Your task to perform on an android device: toggle notifications settings in the gmail app Image 0: 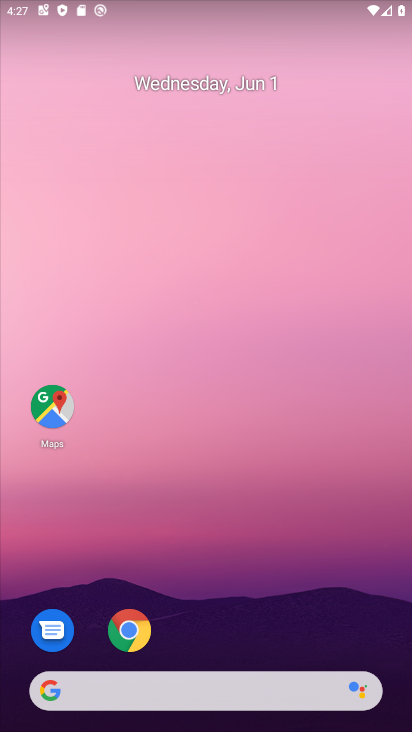
Step 0: drag from (261, 640) to (300, 24)
Your task to perform on an android device: toggle notifications settings in the gmail app Image 1: 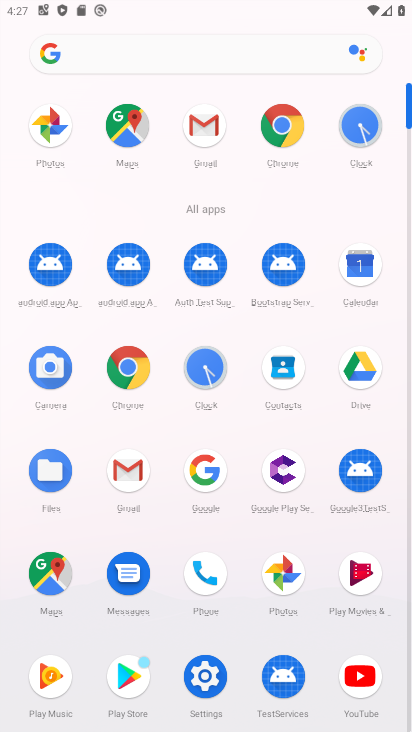
Step 1: click (122, 483)
Your task to perform on an android device: toggle notifications settings in the gmail app Image 2: 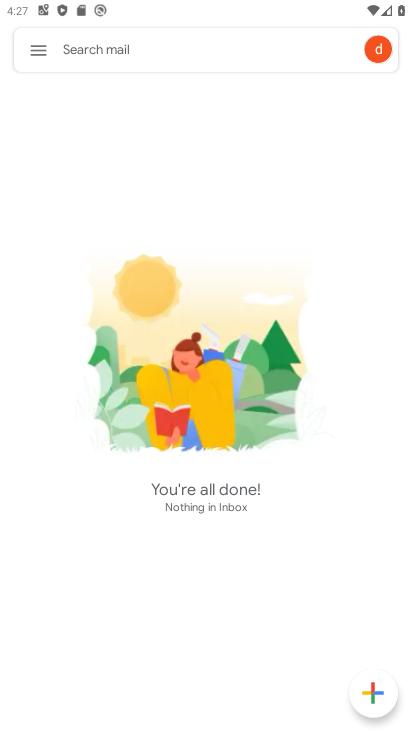
Step 2: click (39, 56)
Your task to perform on an android device: toggle notifications settings in the gmail app Image 3: 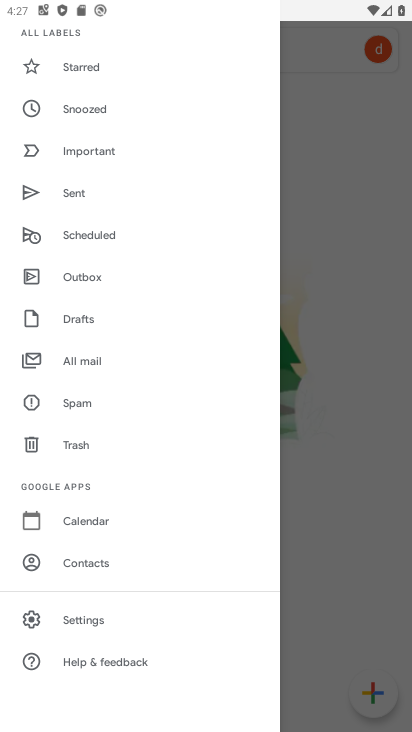
Step 3: click (99, 617)
Your task to perform on an android device: toggle notifications settings in the gmail app Image 4: 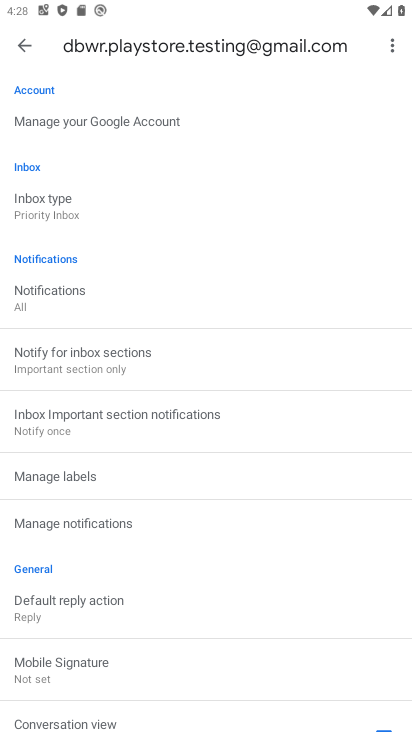
Step 4: click (62, 532)
Your task to perform on an android device: toggle notifications settings in the gmail app Image 5: 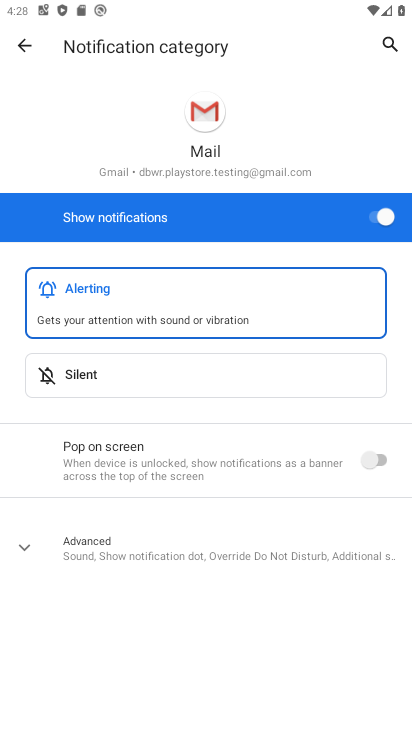
Step 5: click (377, 221)
Your task to perform on an android device: toggle notifications settings in the gmail app Image 6: 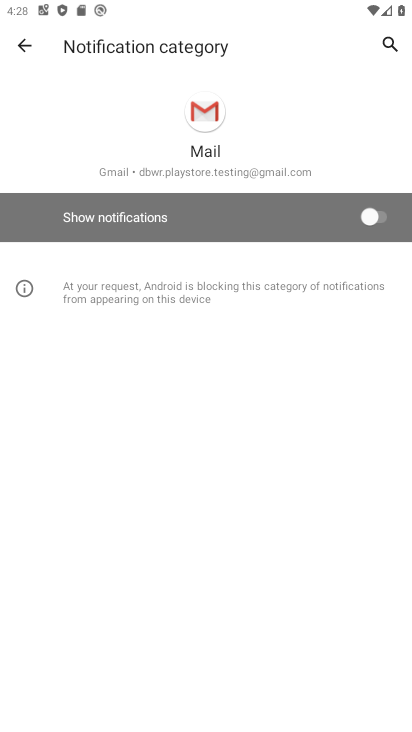
Step 6: task complete